Your task to perform on an android device: Is it going to rain this weekend? Image 0: 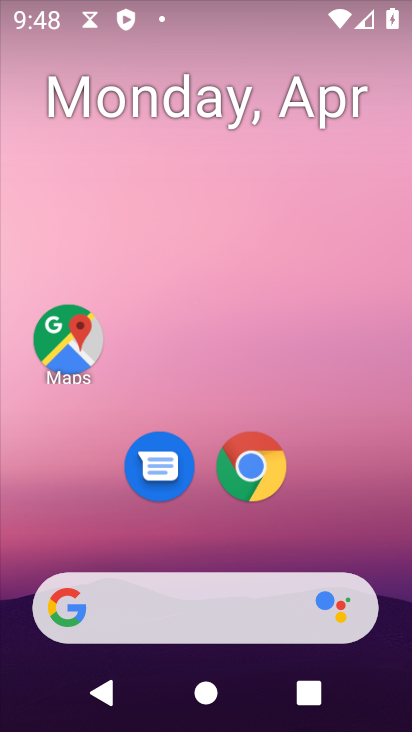
Step 0: drag from (204, 552) to (257, 71)
Your task to perform on an android device: Is it going to rain this weekend? Image 1: 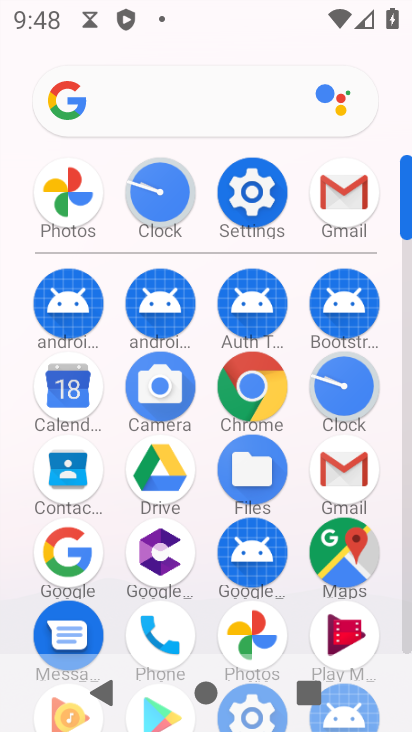
Step 1: click (72, 562)
Your task to perform on an android device: Is it going to rain this weekend? Image 2: 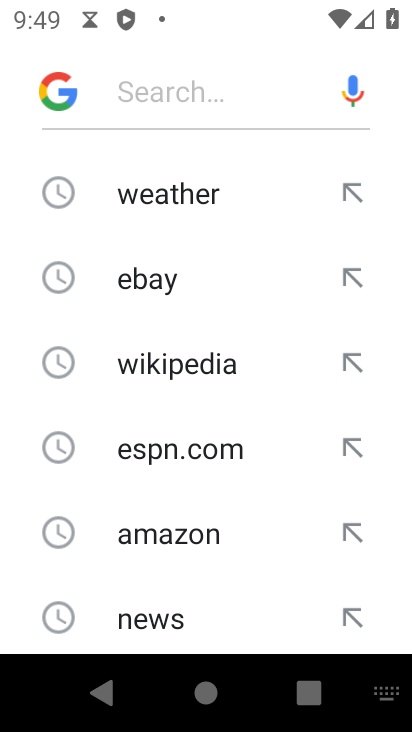
Step 2: click (178, 214)
Your task to perform on an android device: Is it going to rain this weekend? Image 3: 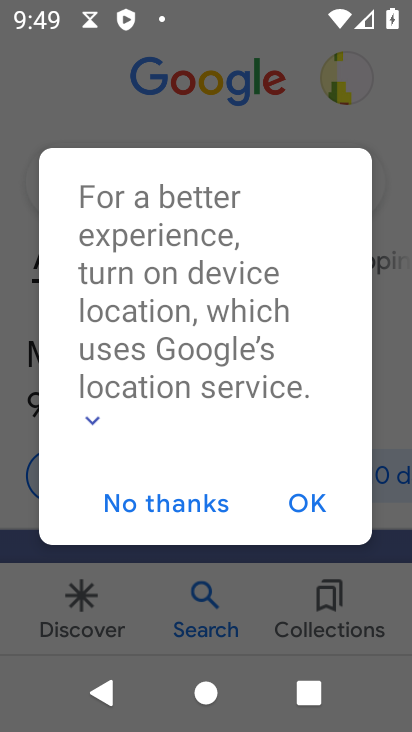
Step 3: click (215, 507)
Your task to perform on an android device: Is it going to rain this weekend? Image 4: 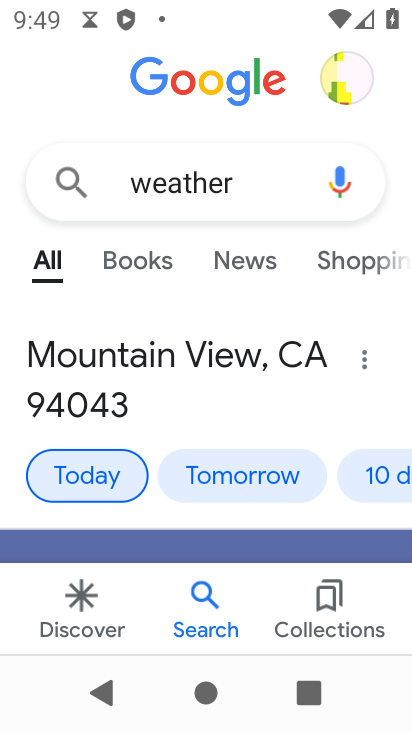
Step 4: drag from (227, 477) to (188, 316)
Your task to perform on an android device: Is it going to rain this weekend? Image 5: 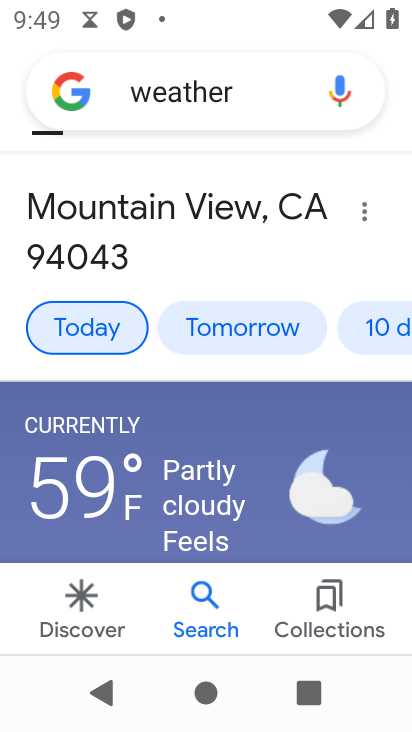
Step 5: drag from (313, 333) to (110, 313)
Your task to perform on an android device: Is it going to rain this weekend? Image 6: 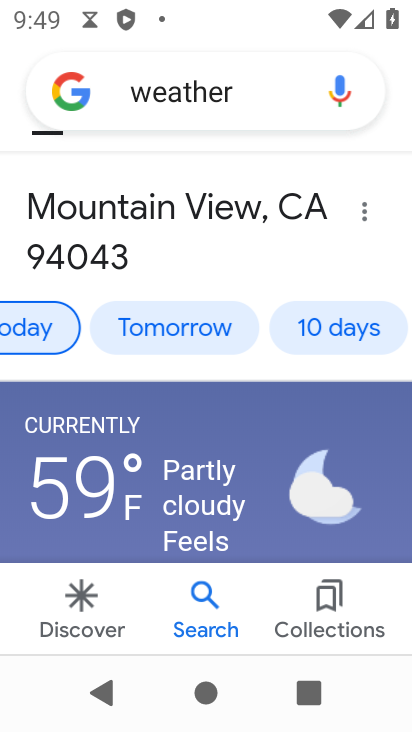
Step 6: click (333, 329)
Your task to perform on an android device: Is it going to rain this weekend? Image 7: 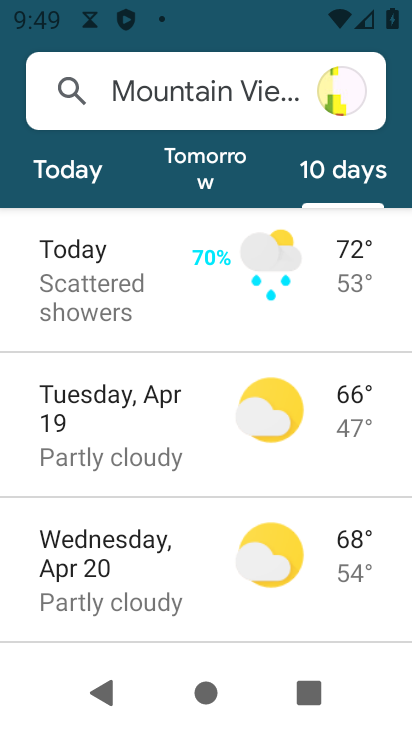
Step 7: drag from (200, 527) to (211, 403)
Your task to perform on an android device: Is it going to rain this weekend? Image 8: 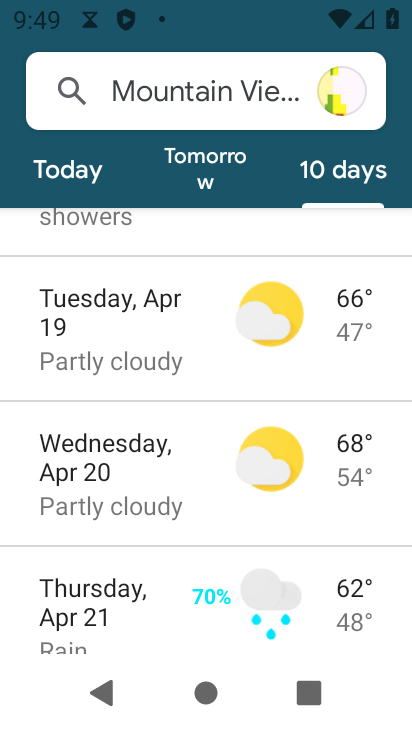
Step 8: drag from (162, 524) to (175, 421)
Your task to perform on an android device: Is it going to rain this weekend? Image 9: 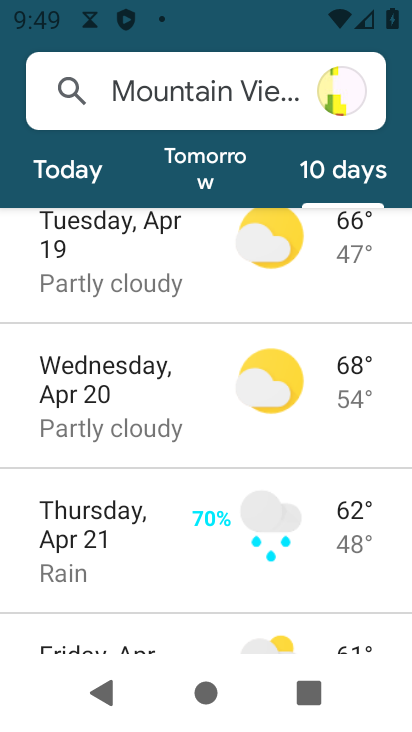
Step 9: click (193, 406)
Your task to perform on an android device: Is it going to rain this weekend? Image 10: 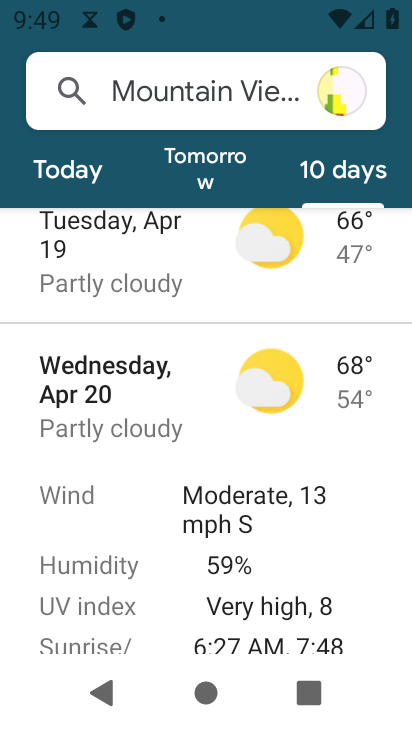
Step 10: drag from (157, 579) to (168, 491)
Your task to perform on an android device: Is it going to rain this weekend? Image 11: 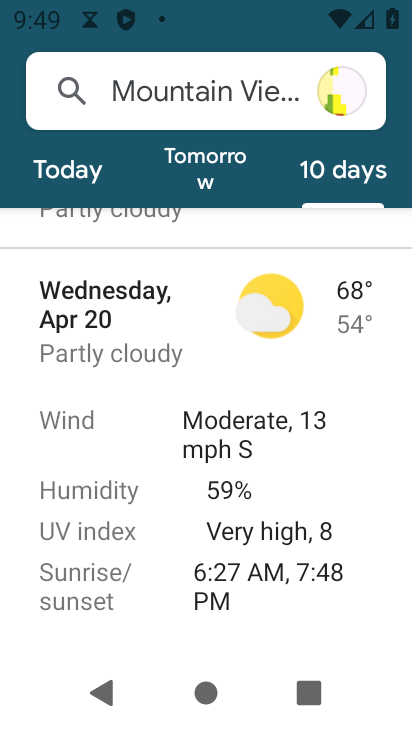
Step 11: drag from (186, 407) to (194, 520)
Your task to perform on an android device: Is it going to rain this weekend? Image 12: 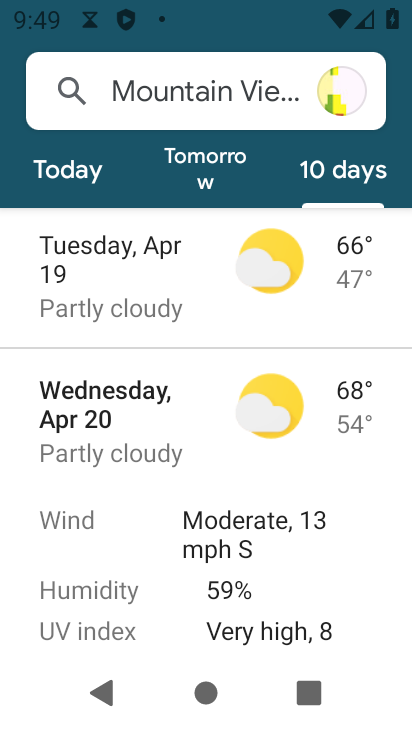
Step 12: drag from (189, 514) to (203, 288)
Your task to perform on an android device: Is it going to rain this weekend? Image 13: 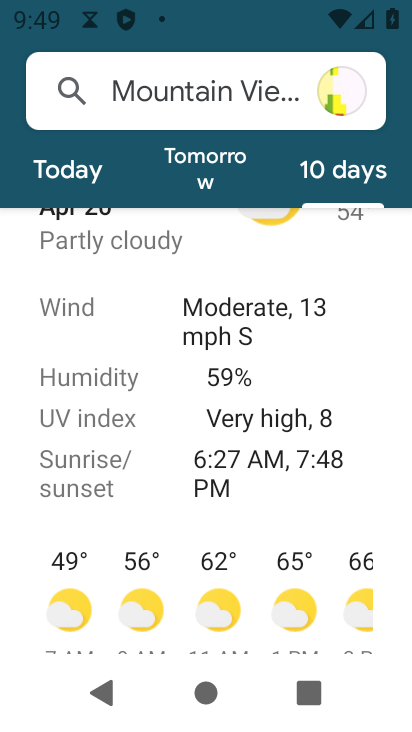
Step 13: drag from (142, 486) to (186, 278)
Your task to perform on an android device: Is it going to rain this weekend? Image 14: 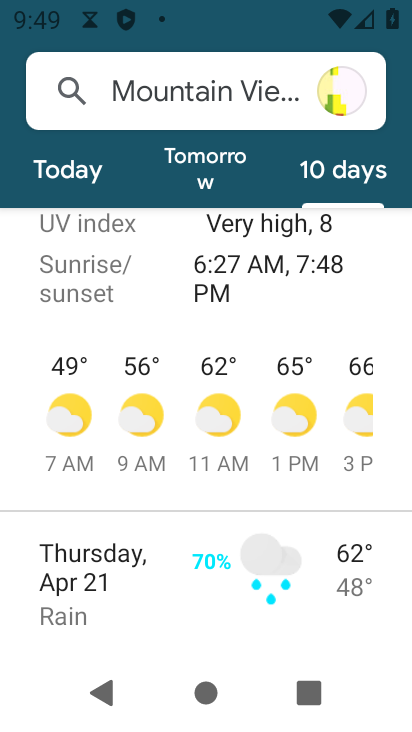
Step 14: drag from (165, 560) to (201, 348)
Your task to perform on an android device: Is it going to rain this weekend? Image 15: 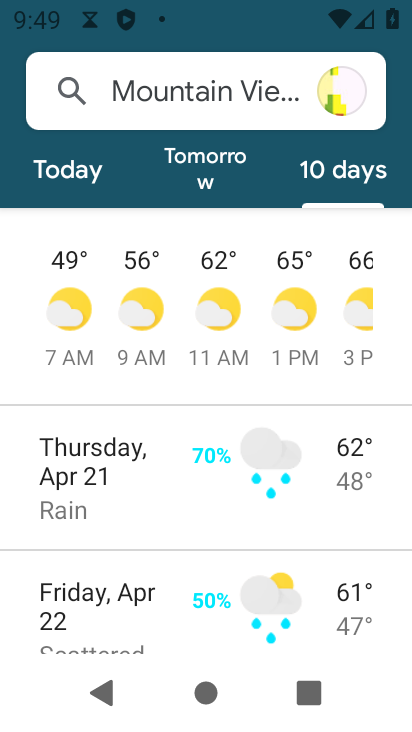
Step 15: drag from (160, 601) to (180, 367)
Your task to perform on an android device: Is it going to rain this weekend? Image 16: 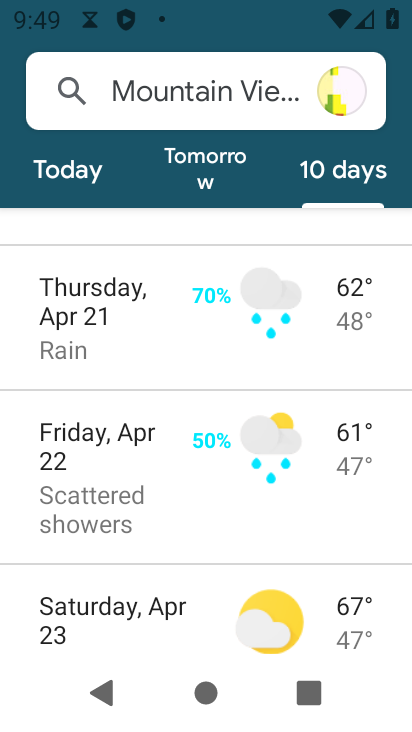
Step 16: drag from (165, 591) to (181, 446)
Your task to perform on an android device: Is it going to rain this weekend? Image 17: 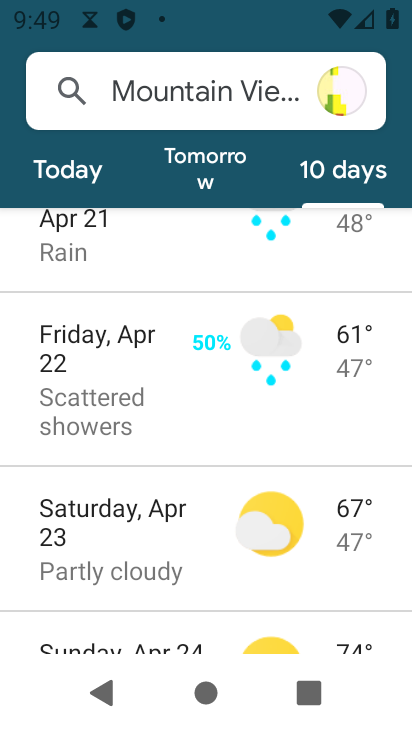
Step 17: drag from (163, 563) to (163, 484)
Your task to perform on an android device: Is it going to rain this weekend? Image 18: 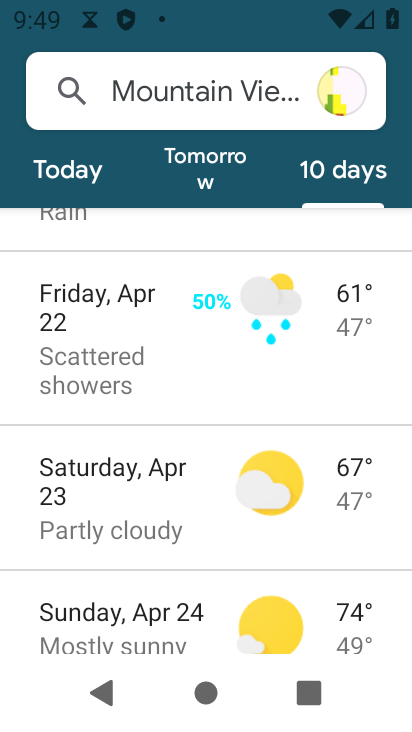
Step 18: click (252, 499)
Your task to perform on an android device: Is it going to rain this weekend? Image 19: 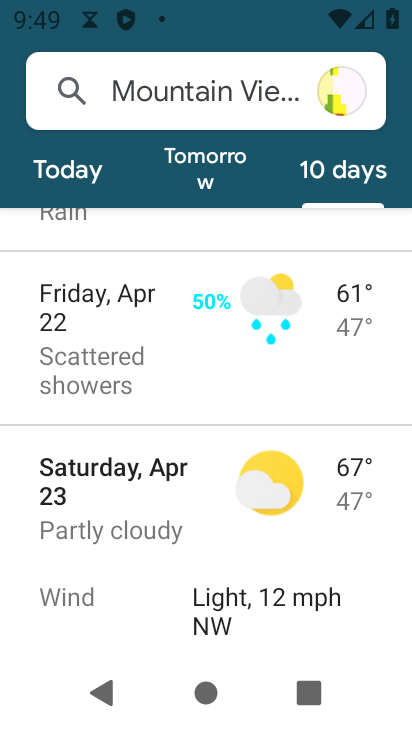
Step 19: task complete